Your task to perform on an android device: change the clock display to analog Image 0: 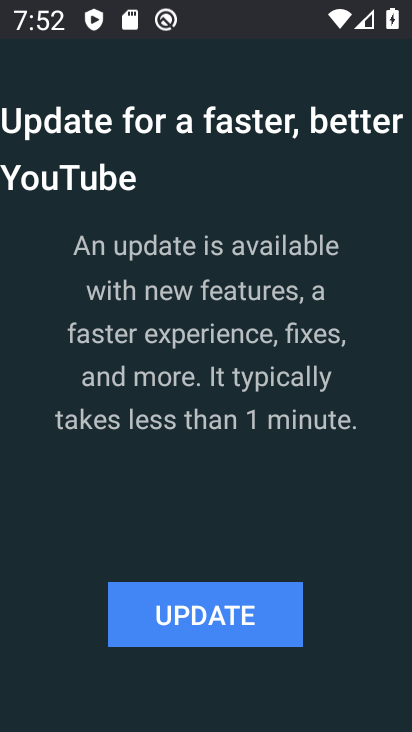
Step 0: press back button
Your task to perform on an android device: change the clock display to analog Image 1: 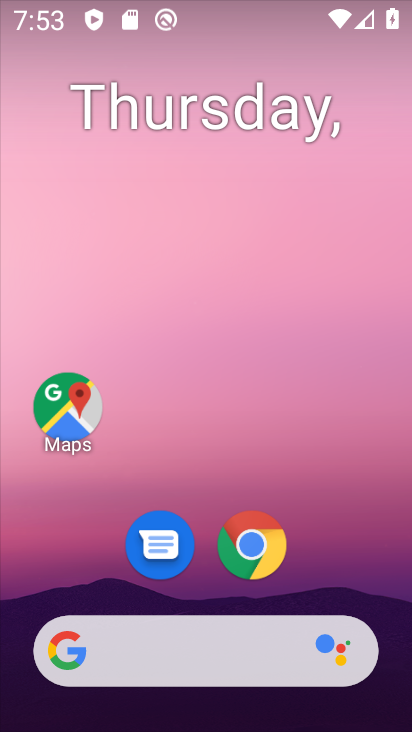
Step 1: drag from (307, 479) to (341, 99)
Your task to perform on an android device: change the clock display to analog Image 2: 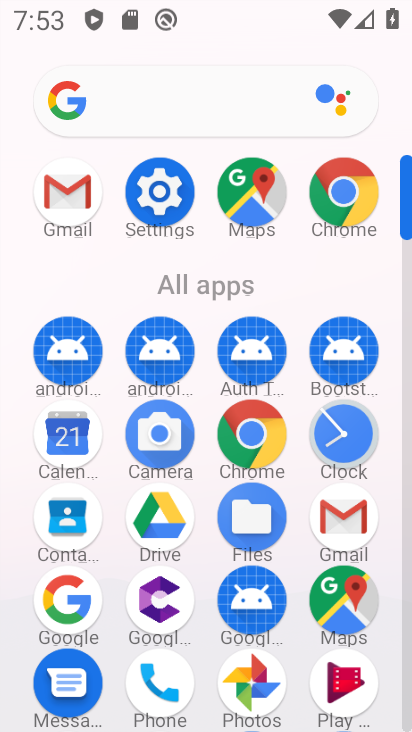
Step 2: click (341, 425)
Your task to perform on an android device: change the clock display to analog Image 3: 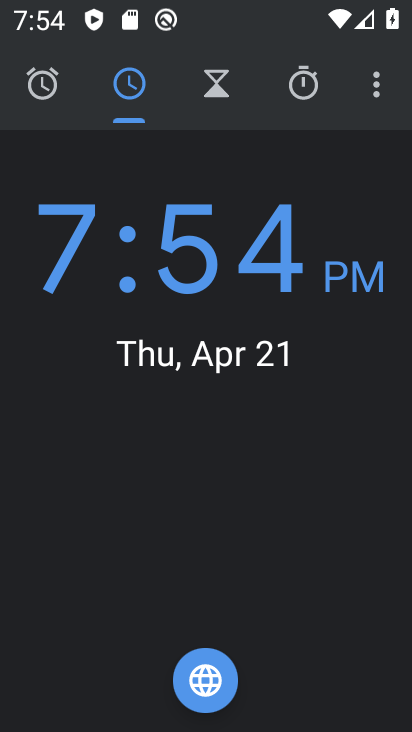
Step 3: click (369, 84)
Your task to perform on an android device: change the clock display to analog Image 4: 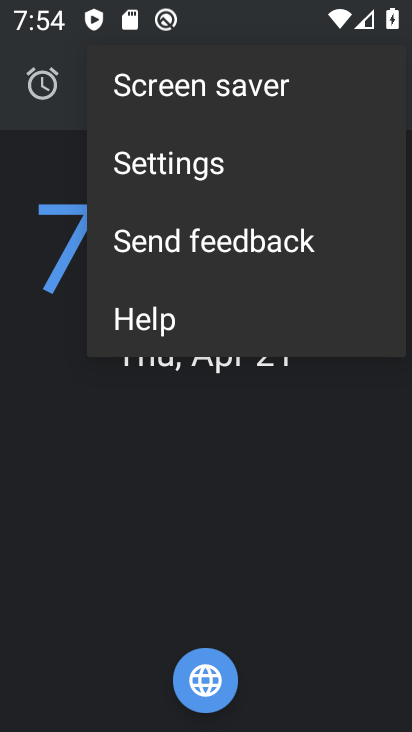
Step 4: click (209, 170)
Your task to perform on an android device: change the clock display to analog Image 5: 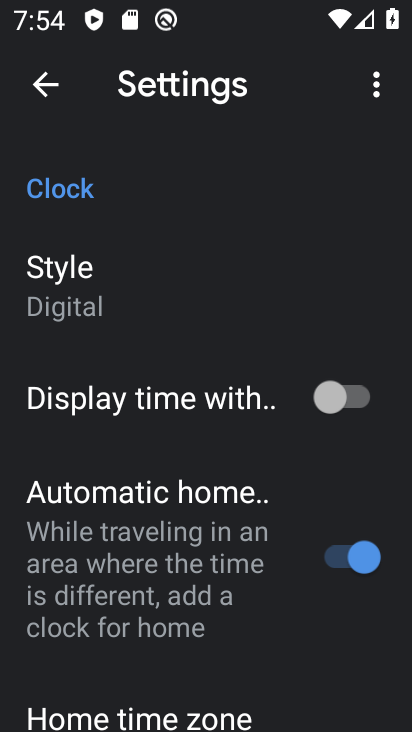
Step 5: click (90, 267)
Your task to perform on an android device: change the clock display to analog Image 6: 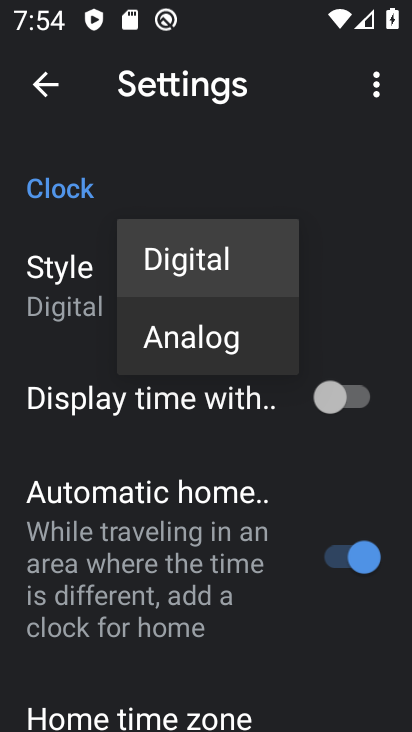
Step 6: click (201, 336)
Your task to perform on an android device: change the clock display to analog Image 7: 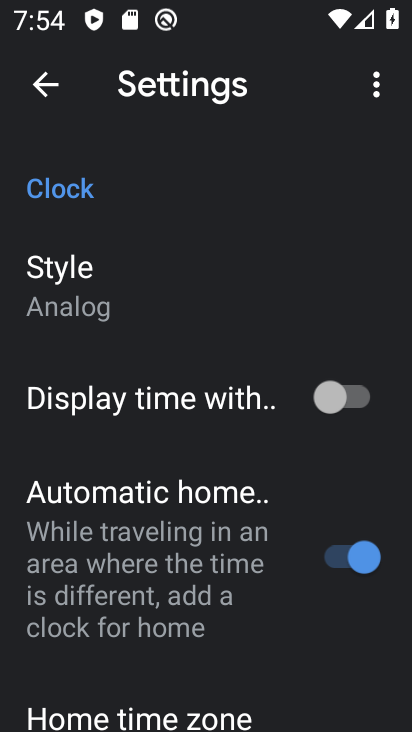
Step 7: task complete